Your task to perform on an android device: set the timer Image 0: 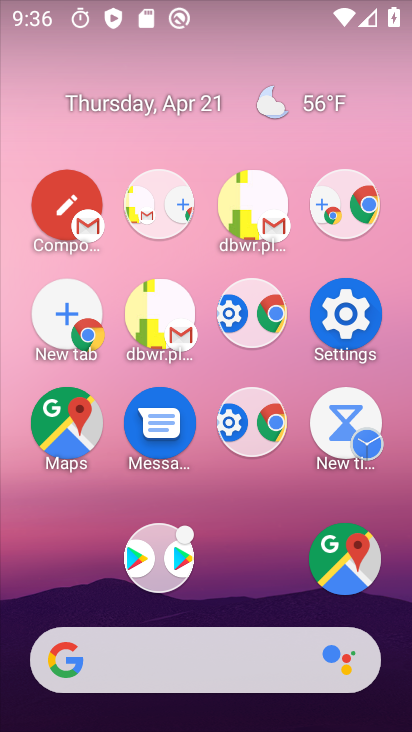
Step 0: drag from (282, 709) to (195, 50)
Your task to perform on an android device: set the timer Image 1: 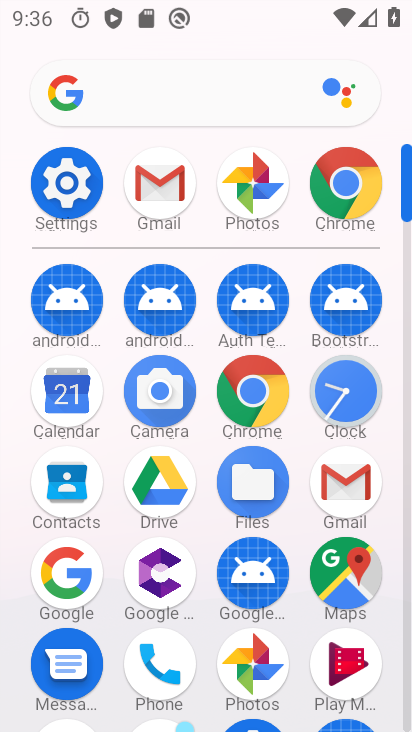
Step 1: click (342, 395)
Your task to perform on an android device: set the timer Image 2: 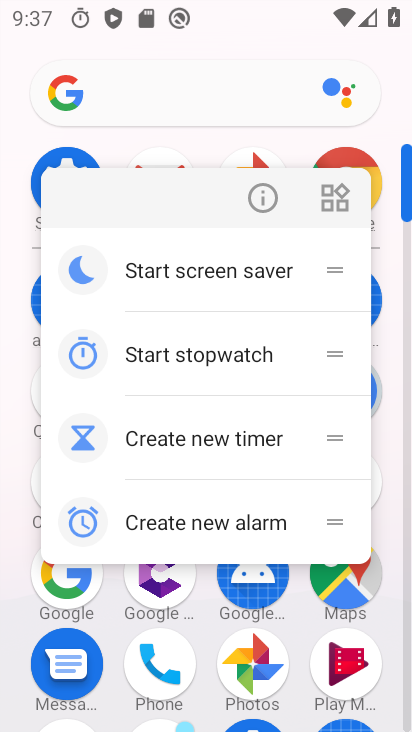
Step 2: click (389, 430)
Your task to perform on an android device: set the timer Image 3: 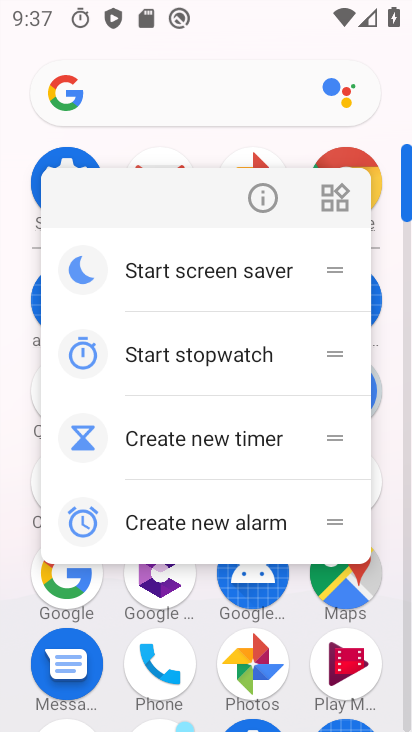
Step 3: click (389, 421)
Your task to perform on an android device: set the timer Image 4: 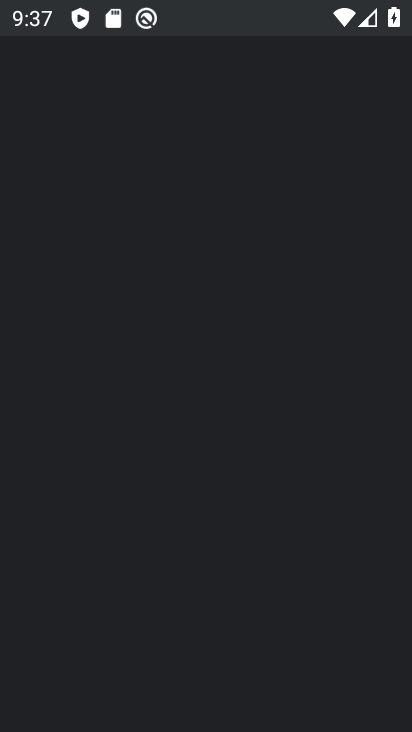
Step 4: click (353, 380)
Your task to perform on an android device: set the timer Image 5: 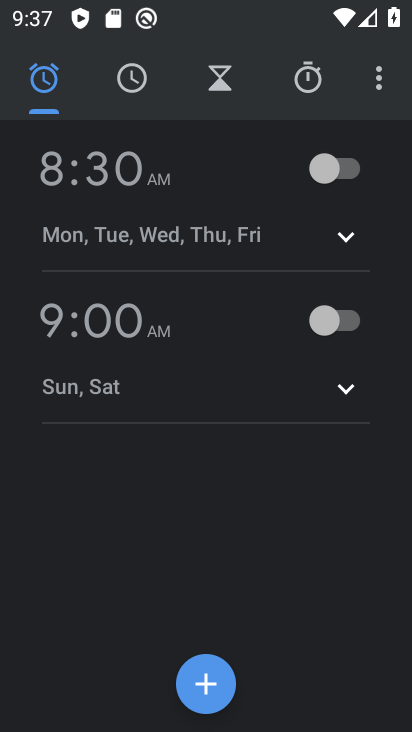
Step 5: press home button
Your task to perform on an android device: set the timer Image 6: 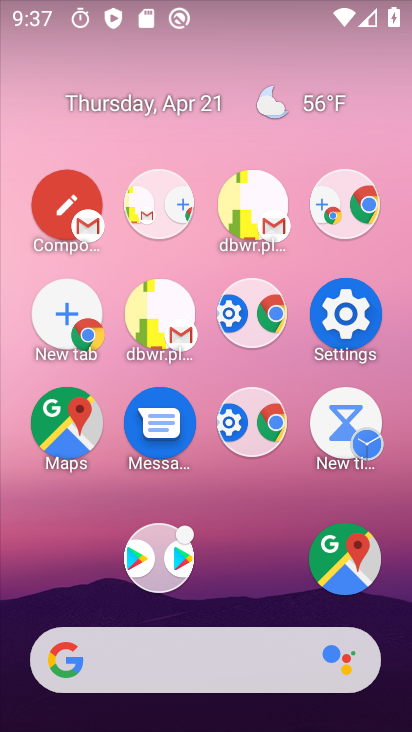
Step 6: drag from (225, 385) to (142, 92)
Your task to perform on an android device: set the timer Image 7: 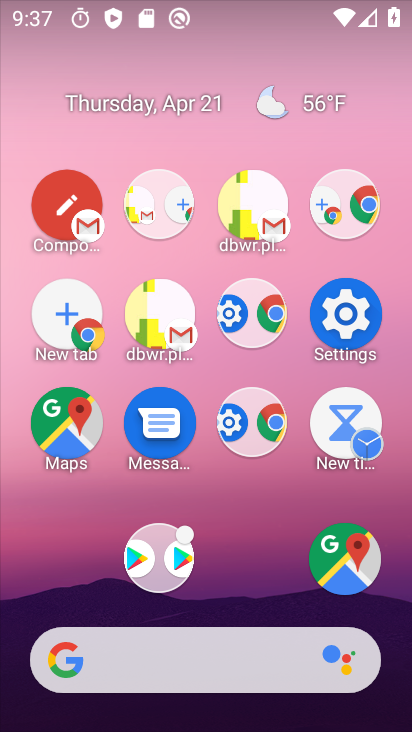
Step 7: drag from (235, 395) to (173, 152)
Your task to perform on an android device: set the timer Image 8: 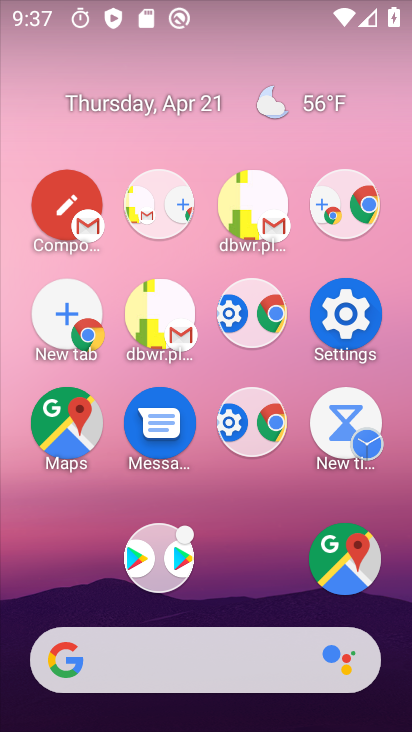
Step 8: drag from (286, 539) to (182, 207)
Your task to perform on an android device: set the timer Image 9: 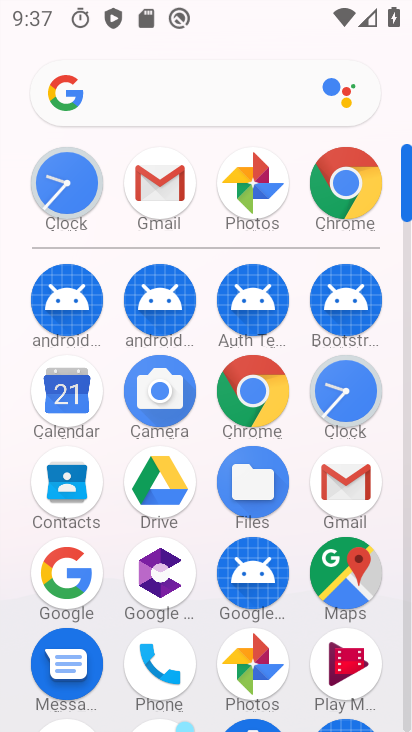
Step 9: drag from (344, 406) to (351, 323)
Your task to perform on an android device: set the timer Image 10: 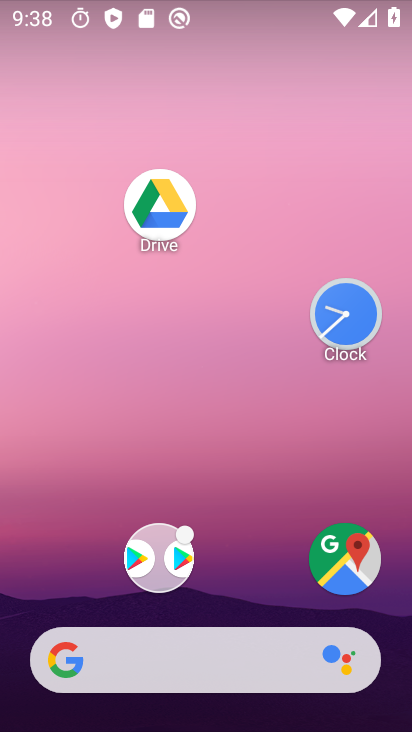
Step 10: drag from (262, 523) to (140, 21)
Your task to perform on an android device: set the timer Image 11: 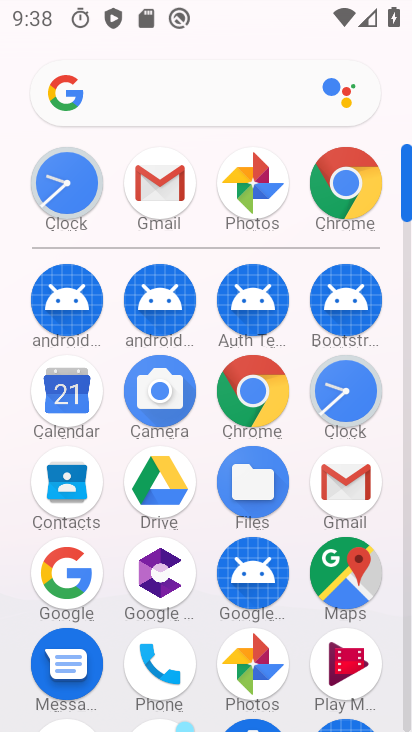
Step 11: drag from (253, 468) to (179, 78)
Your task to perform on an android device: set the timer Image 12: 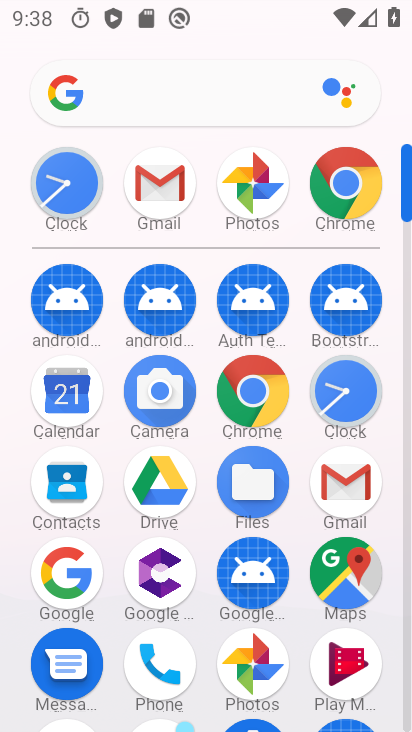
Step 12: click (67, 199)
Your task to perform on an android device: set the timer Image 13: 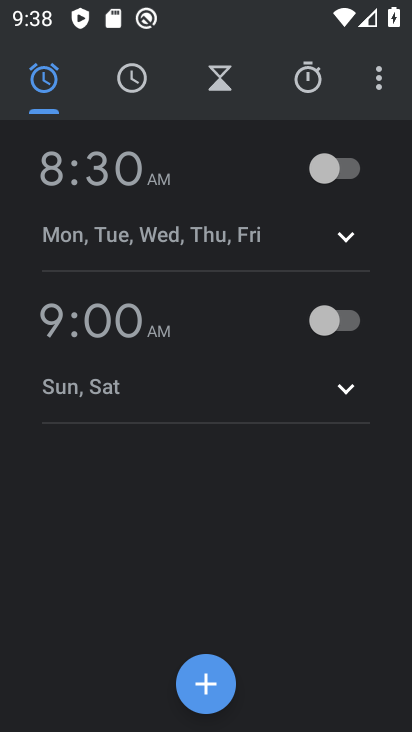
Step 13: click (307, 81)
Your task to perform on an android device: set the timer Image 14: 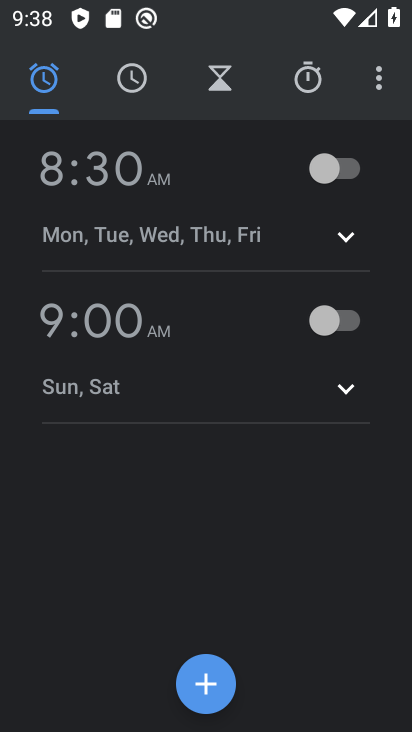
Step 14: click (213, 91)
Your task to perform on an android device: set the timer Image 15: 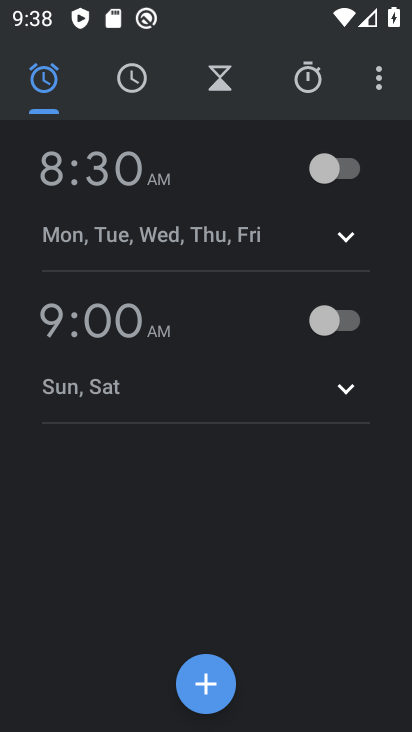
Step 15: click (214, 87)
Your task to perform on an android device: set the timer Image 16: 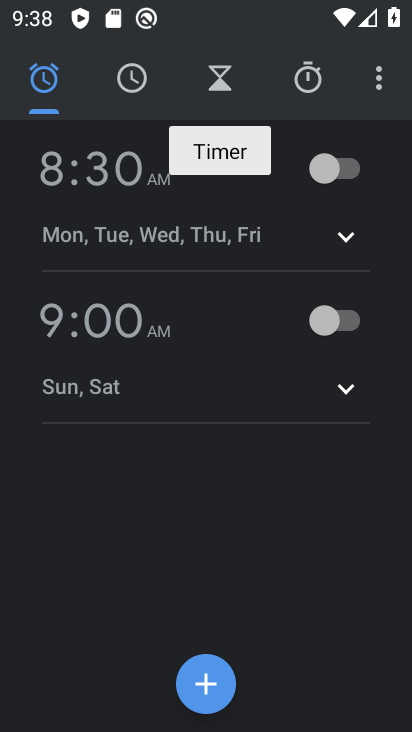
Step 16: click (214, 87)
Your task to perform on an android device: set the timer Image 17: 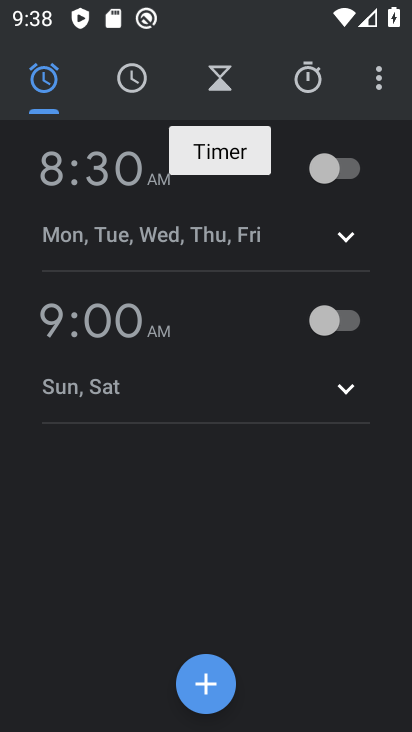
Step 17: click (214, 80)
Your task to perform on an android device: set the timer Image 18: 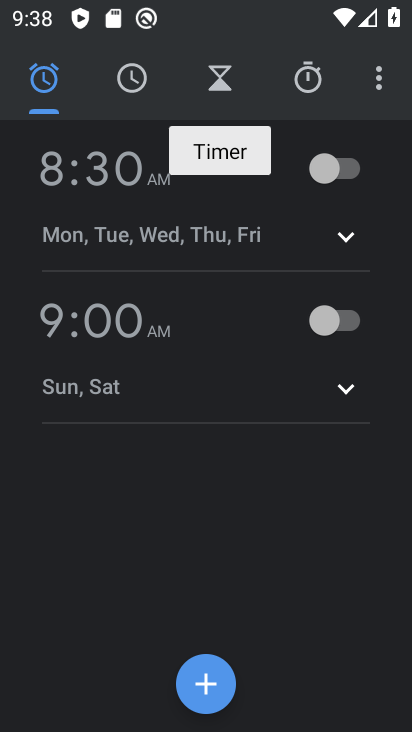
Step 18: click (221, 88)
Your task to perform on an android device: set the timer Image 19: 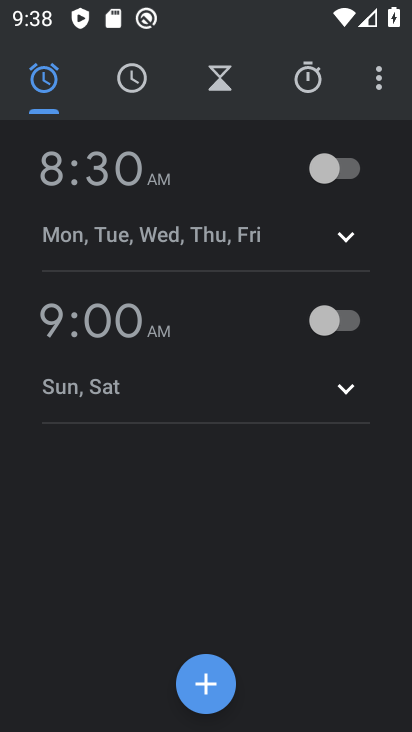
Step 19: click (215, 92)
Your task to perform on an android device: set the timer Image 20: 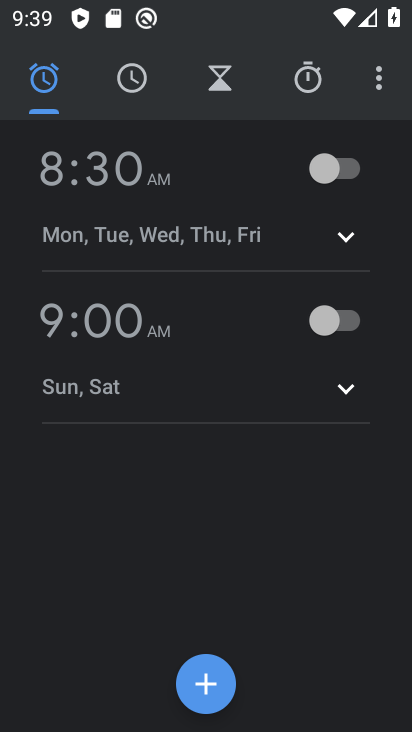
Step 20: click (218, 88)
Your task to perform on an android device: set the timer Image 21: 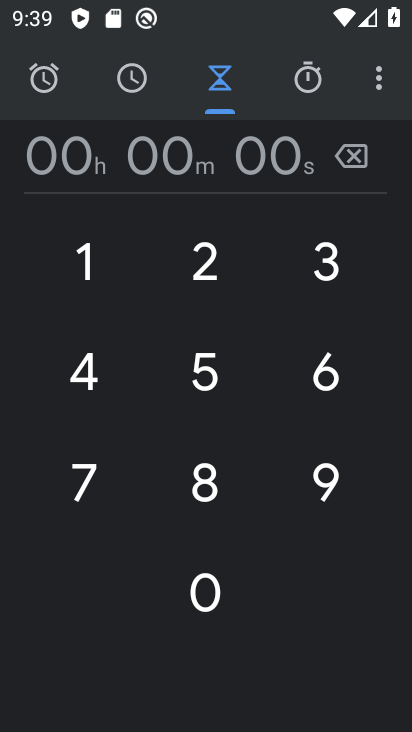
Step 21: click (218, 81)
Your task to perform on an android device: set the timer Image 22: 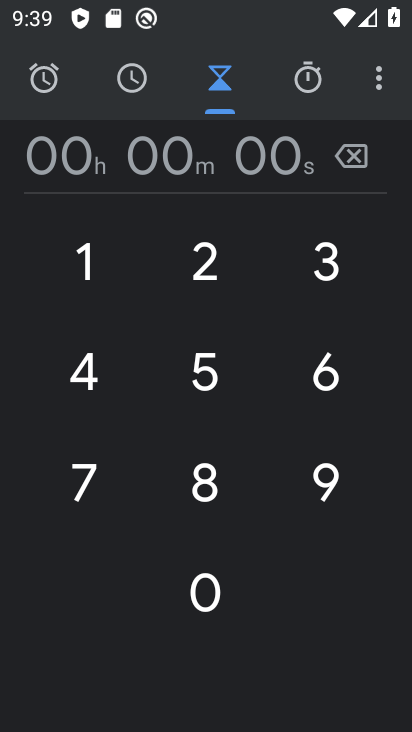
Step 22: click (201, 480)
Your task to perform on an android device: set the timer Image 23: 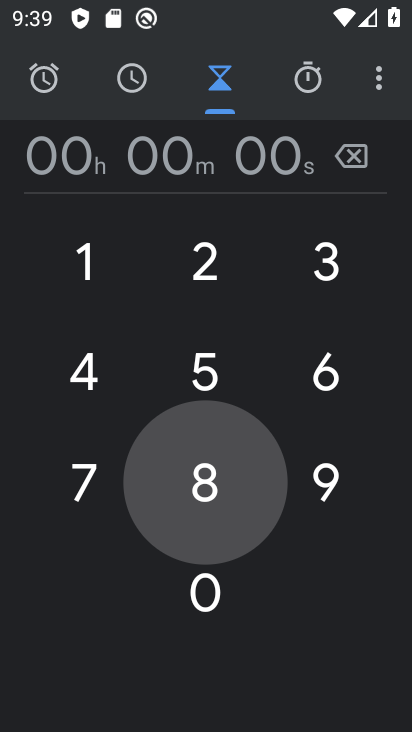
Step 23: click (201, 489)
Your task to perform on an android device: set the timer Image 24: 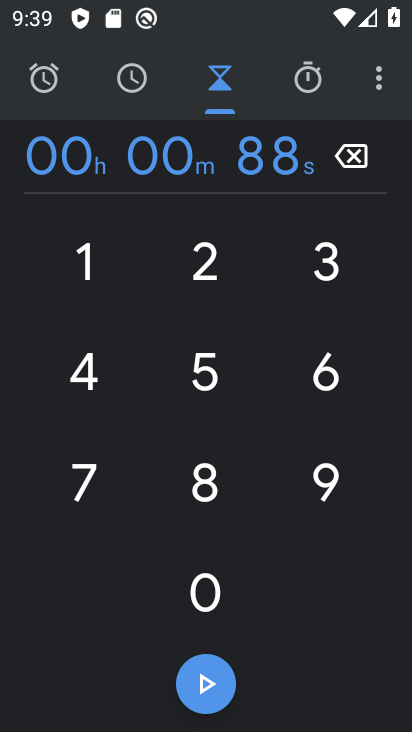
Step 24: click (205, 683)
Your task to perform on an android device: set the timer Image 25: 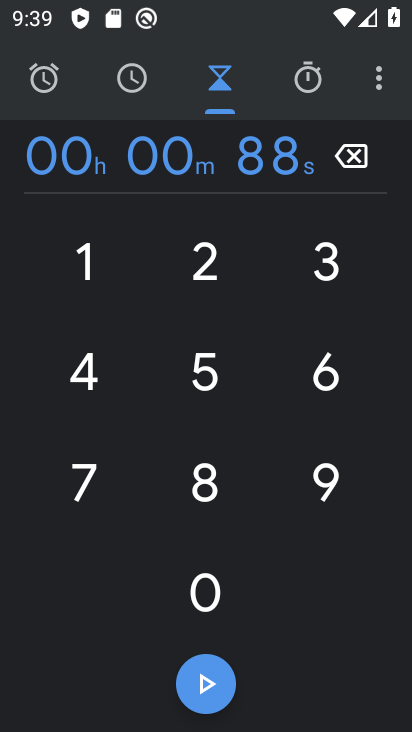
Step 25: click (202, 680)
Your task to perform on an android device: set the timer Image 26: 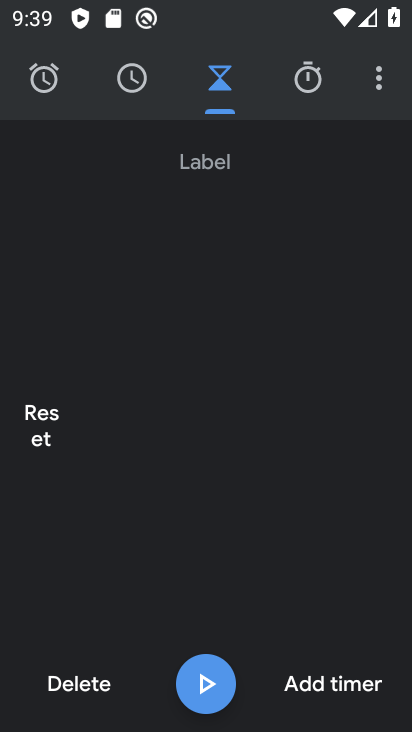
Step 26: click (206, 681)
Your task to perform on an android device: set the timer Image 27: 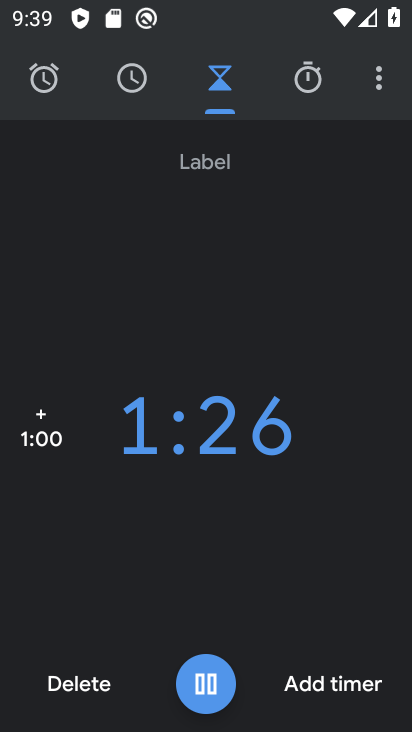
Step 27: click (203, 686)
Your task to perform on an android device: set the timer Image 28: 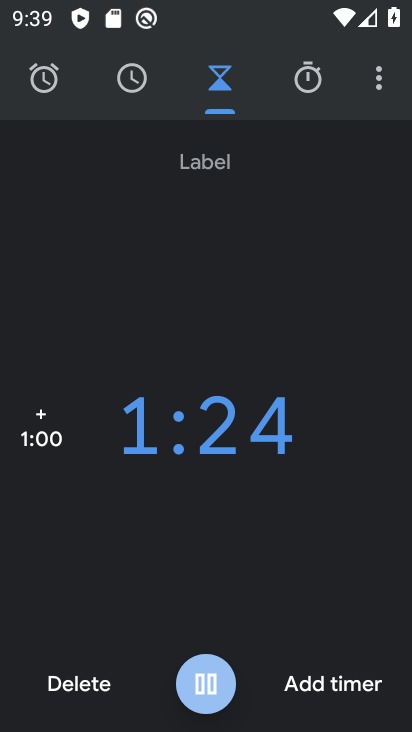
Step 28: click (203, 686)
Your task to perform on an android device: set the timer Image 29: 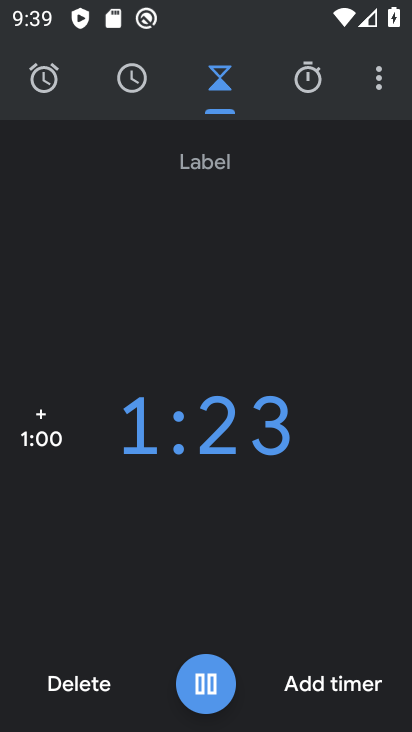
Step 29: click (207, 691)
Your task to perform on an android device: set the timer Image 30: 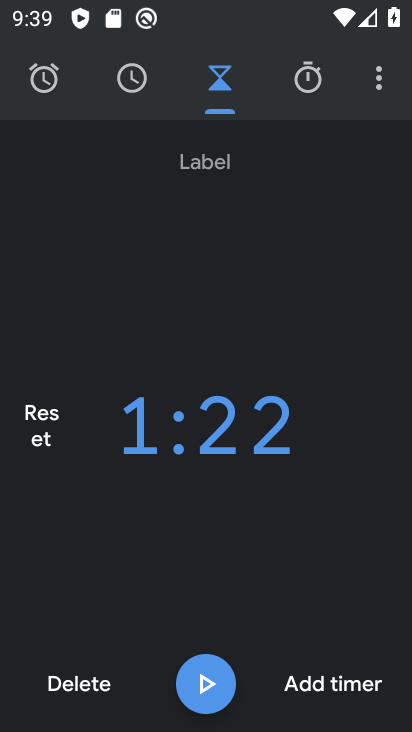
Step 30: task complete